Your task to perform on an android device: Turn on the flashlight Image 0: 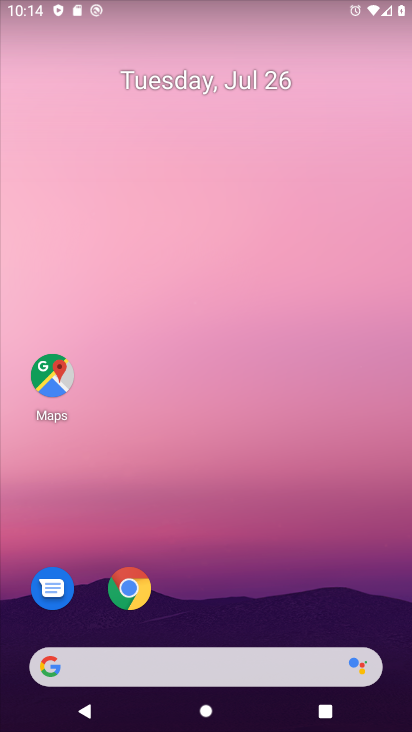
Step 0: drag from (193, 581) to (222, 2)
Your task to perform on an android device: Turn on the flashlight Image 1: 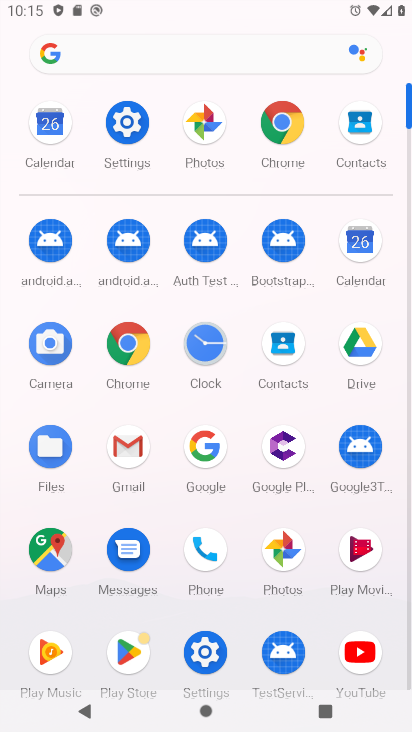
Step 1: click (114, 128)
Your task to perform on an android device: Turn on the flashlight Image 2: 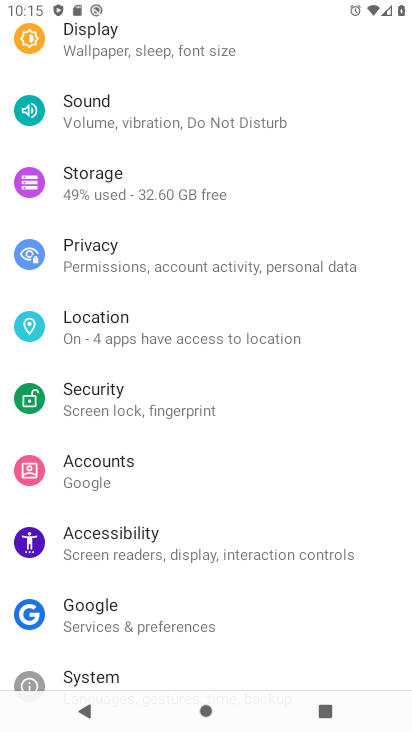
Step 2: drag from (201, 146) to (209, 723)
Your task to perform on an android device: Turn on the flashlight Image 3: 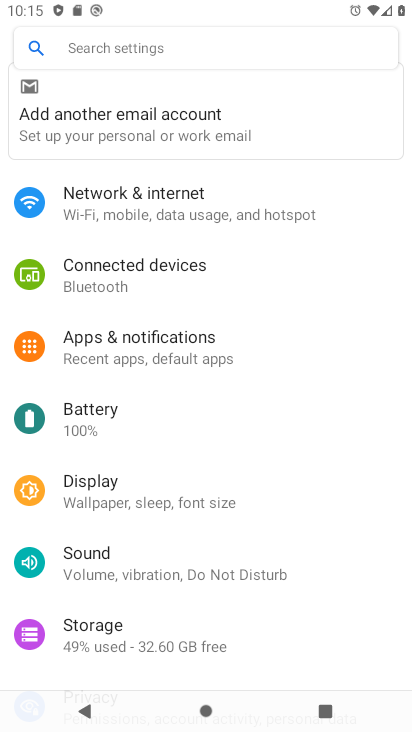
Step 3: click (153, 52)
Your task to perform on an android device: Turn on the flashlight Image 4: 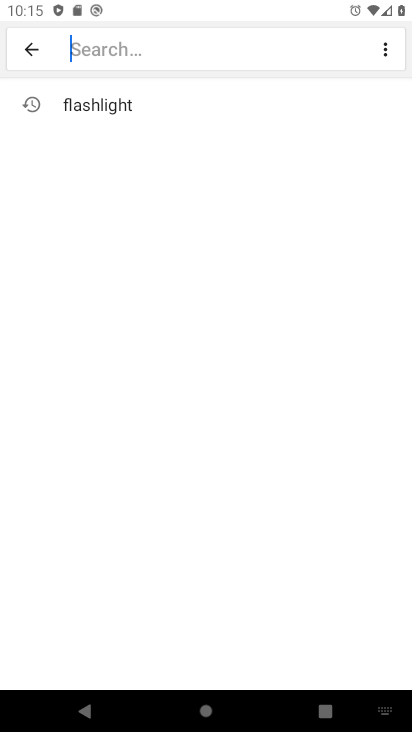
Step 4: type "flashlight"
Your task to perform on an android device: Turn on the flashlight Image 5: 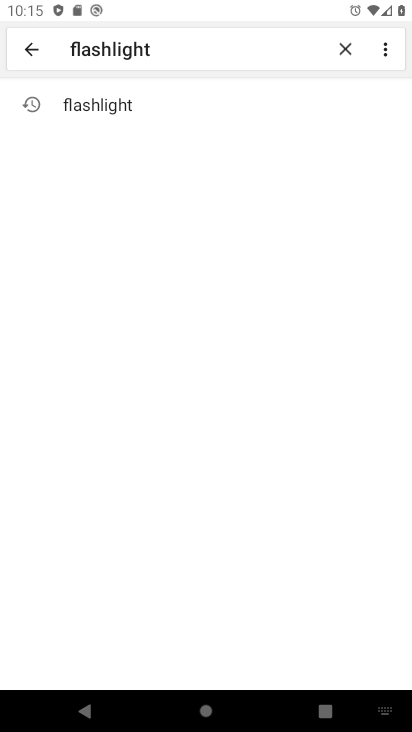
Step 5: click (123, 108)
Your task to perform on an android device: Turn on the flashlight Image 6: 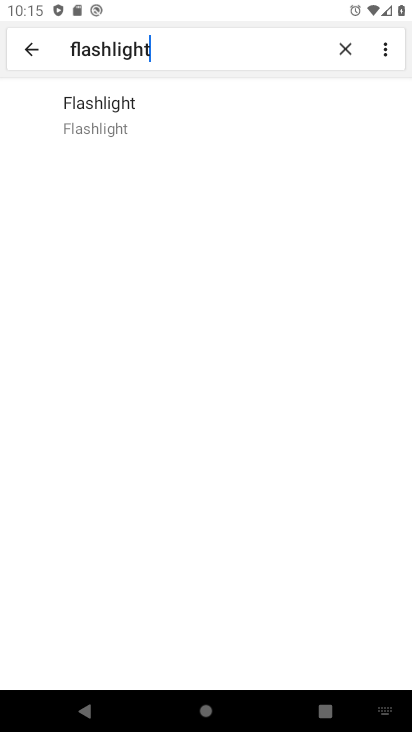
Step 6: click (120, 107)
Your task to perform on an android device: Turn on the flashlight Image 7: 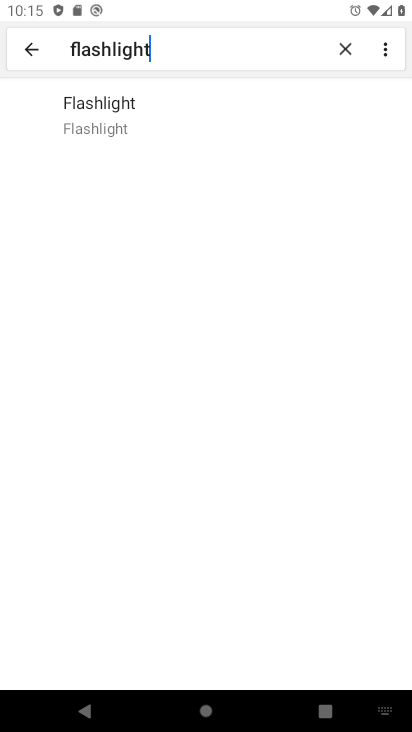
Step 7: click (120, 107)
Your task to perform on an android device: Turn on the flashlight Image 8: 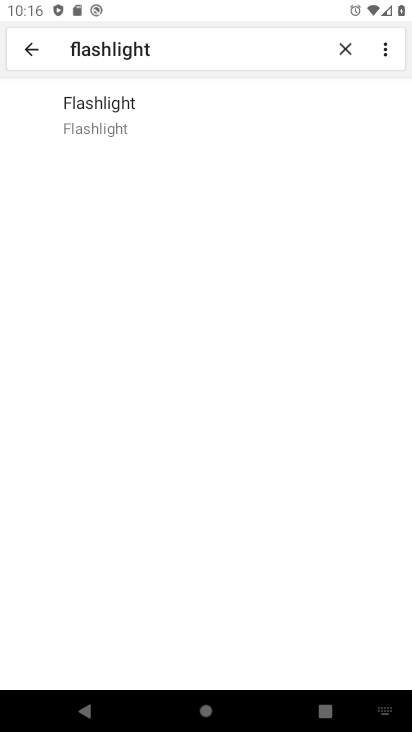
Step 8: click (95, 108)
Your task to perform on an android device: Turn on the flashlight Image 9: 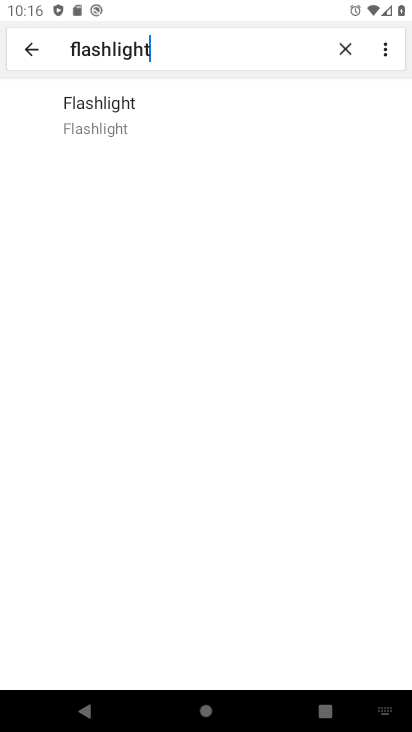
Step 9: click (90, 116)
Your task to perform on an android device: Turn on the flashlight Image 10: 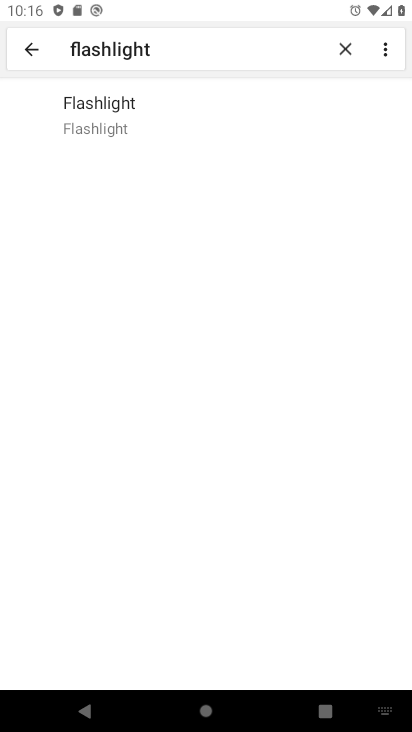
Step 10: task complete